Your task to perform on an android device: toggle pop-ups in chrome Image 0: 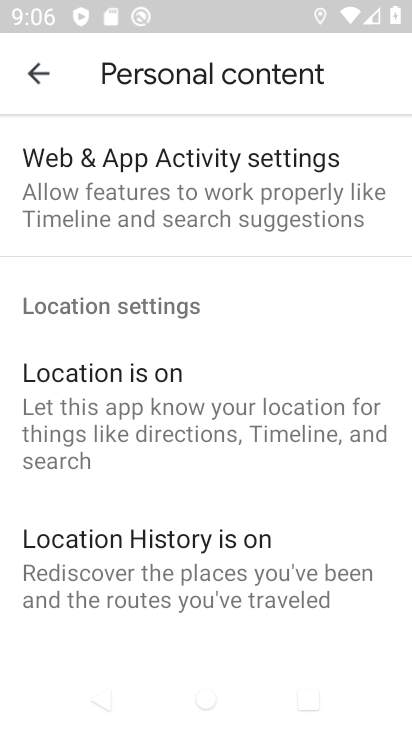
Step 0: press home button
Your task to perform on an android device: toggle pop-ups in chrome Image 1: 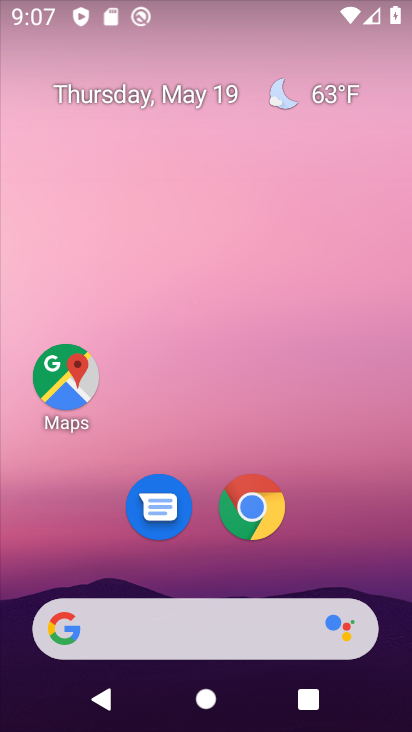
Step 1: drag from (385, 595) to (335, 143)
Your task to perform on an android device: toggle pop-ups in chrome Image 2: 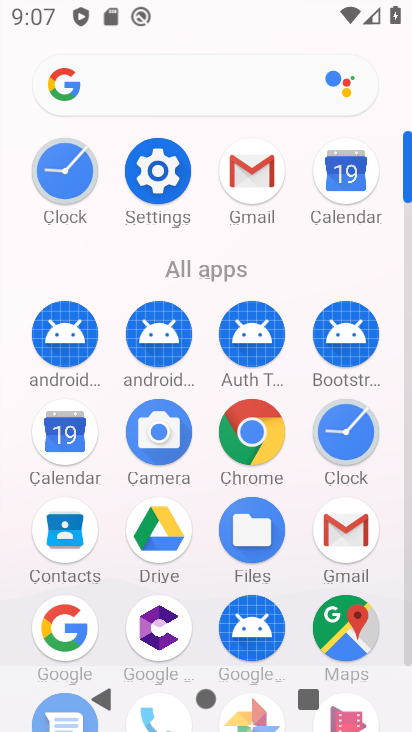
Step 2: click (247, 430)
Your task to perform on an android device: toggle pop-ups in chrome Image 3: 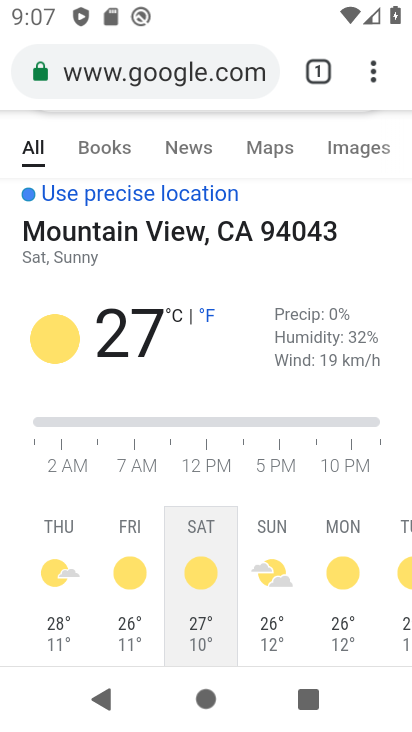
Step 3: click (366, 99)
Your task to perform on an android device: toggle pop-ups in chrome Image 4: 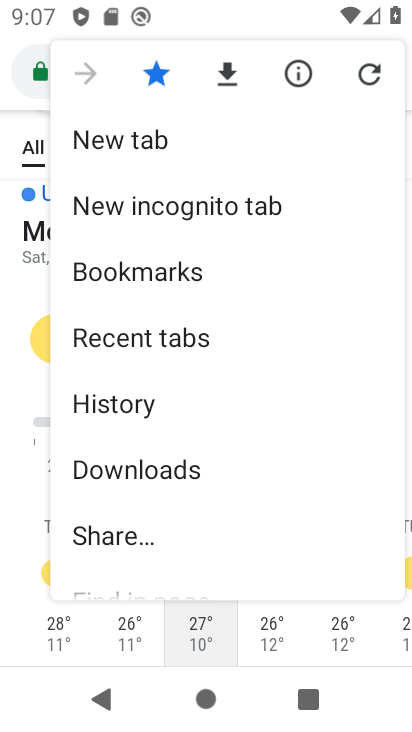
Step 4: drag from (237, 550) to (213, 104)
Your task to perform on an android device: toggle pop-ups in chrome Image 5: 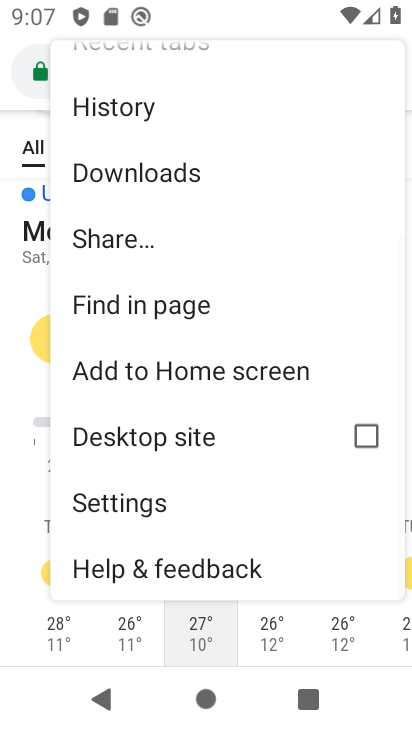
Step 5: drag from (249, 568) to (233, 213)
Your task to perform on an android device: toggle pop-ups in chrome Image 6: 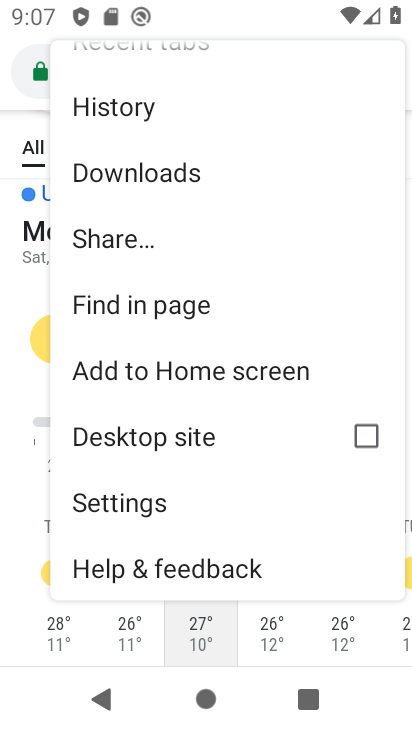
Step 6: click (197, 506)
Your task to perform on an android device: toggle pop-ups in chrome Image 7: 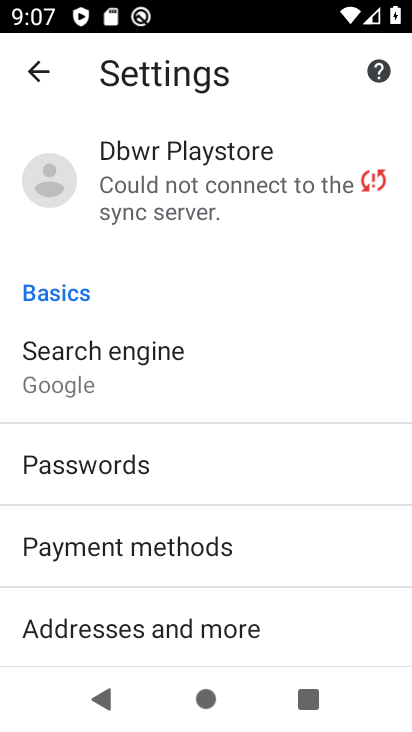
Step 7: drag from (265, 638) to (249, 151)
Your task to perform on an android device: toggle pop-ups in chrome Image 8: 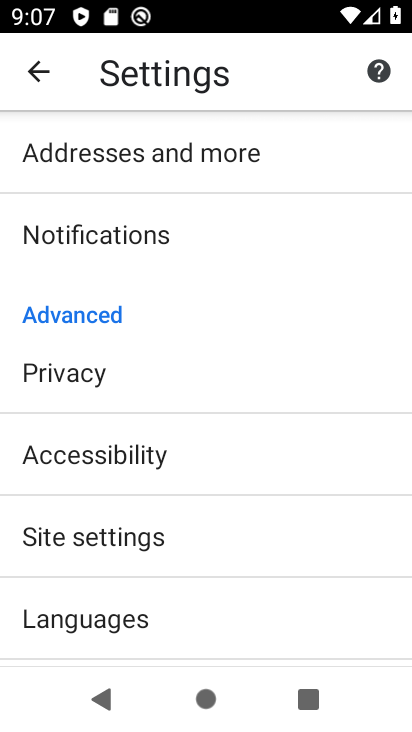
Step 8: click (279, 527)
Your task to perform on an android device: toggle pop-ups in chrome Image 9: 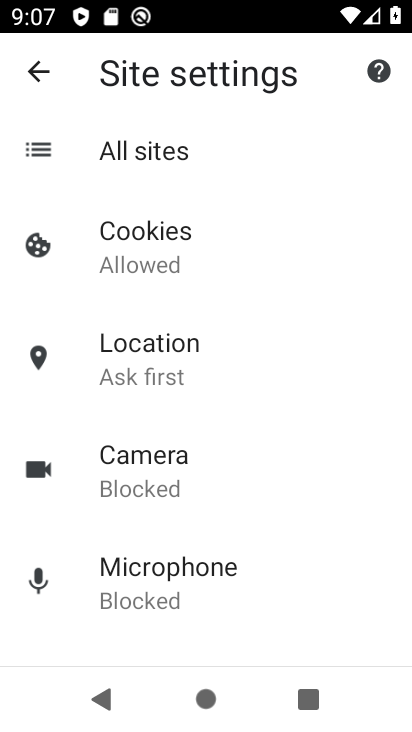
Step 9: drag from (305, 586) to (300, 214)
Your task to perform on an android device: toggle pop-ups in chrome Image 10: 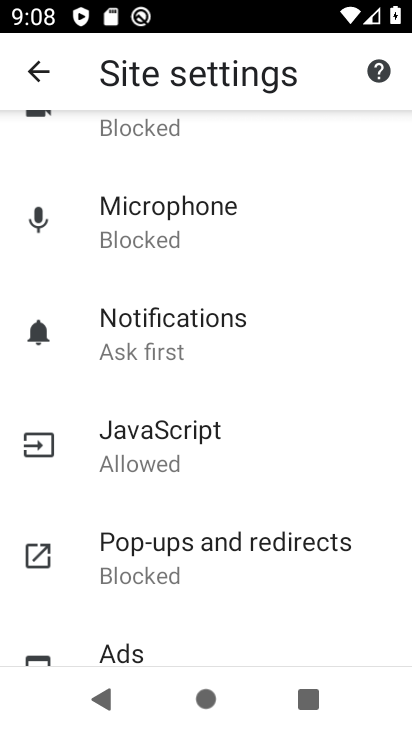
Step 10: click (295, 539)
Your task to perform on an android device: toggle pop-ups in chrome Image 11: 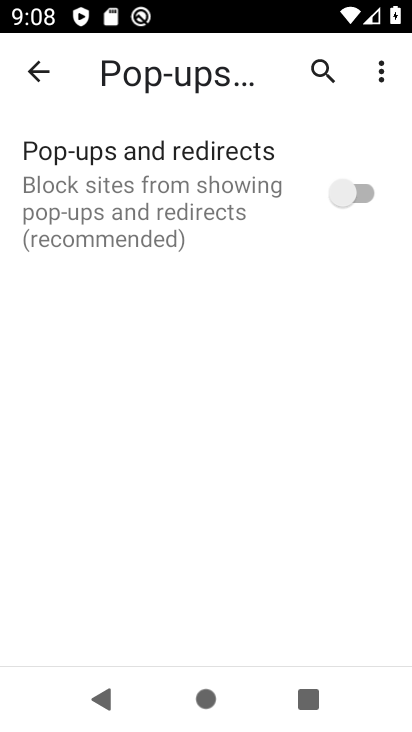
Step 11: click (346, 175)
Your task to perform on an android device: toggle pop-ups in chrome Image 12: 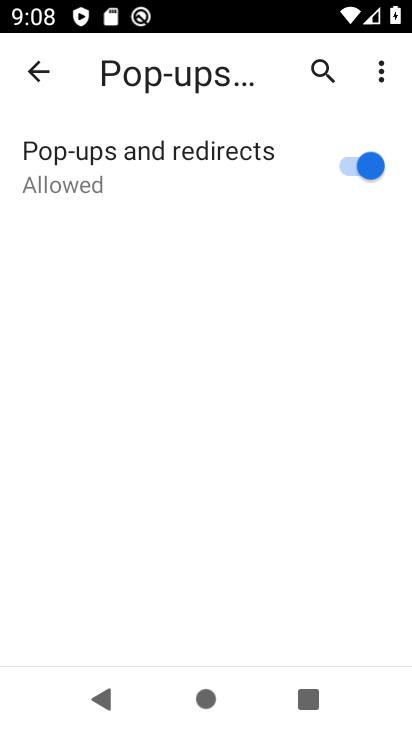
Step 12: task complete